Your task to perform on an android device: turn on improve location accuracy Image 0: 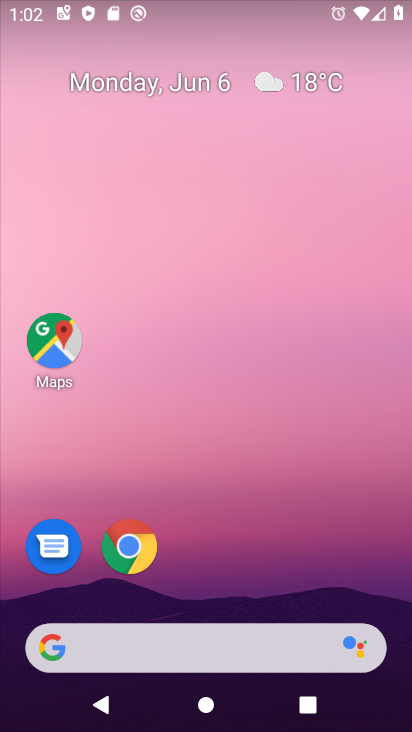
Step 0: drag from (239, 571) to (211, 115)
Your task to perform on an android device: turn on improve location accuracy Image 1: 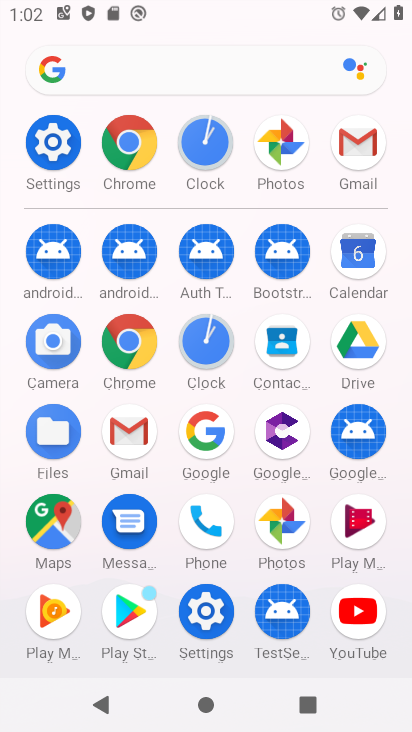
Step 1: click (45, 133)
Your task to perform on an android device: turn on improve location accuracy Image 2: 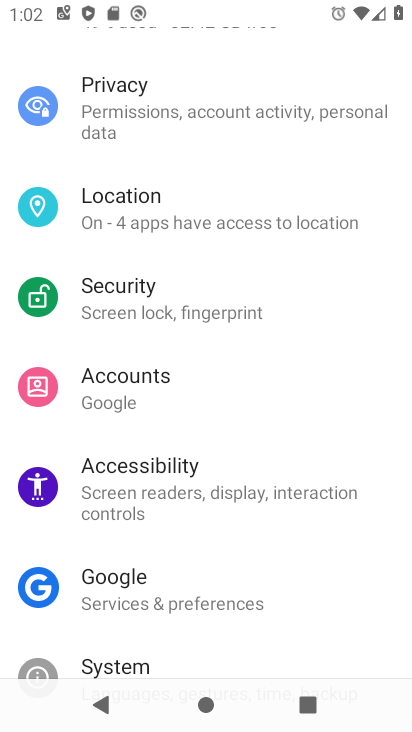
Step 2: click (169, 187)
Your task to perform on an android device: turn on improve location accuracy Image 3: 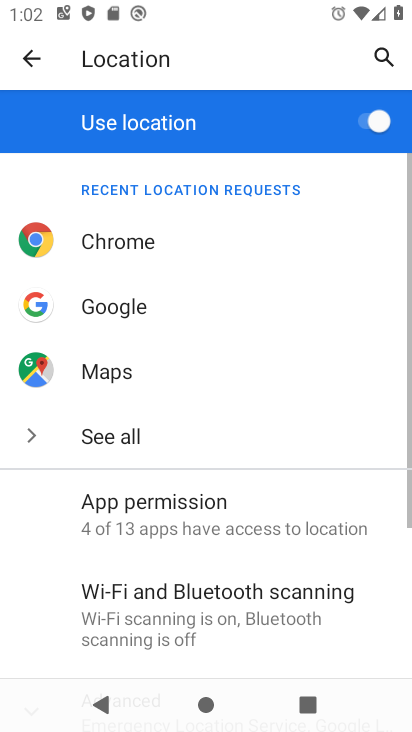
Step 3: drag from (47, 631) to (45, 188)
Your task to perform on an android device: turn on improve location accuracy Image 4: 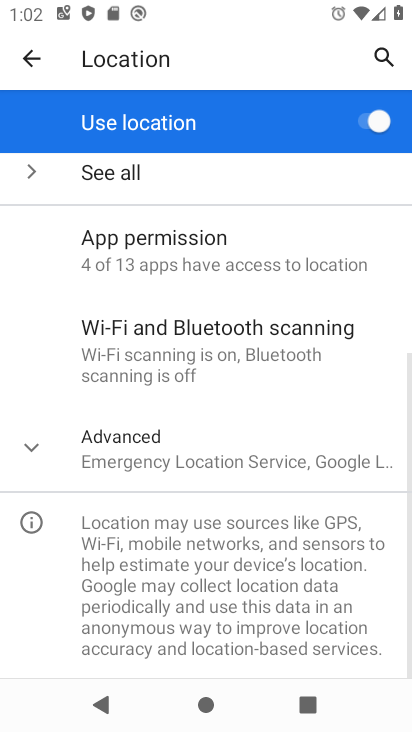
Step 4: click (35, 449)
Your task to perform on an android device: turn on improve location accuracy Image 5: 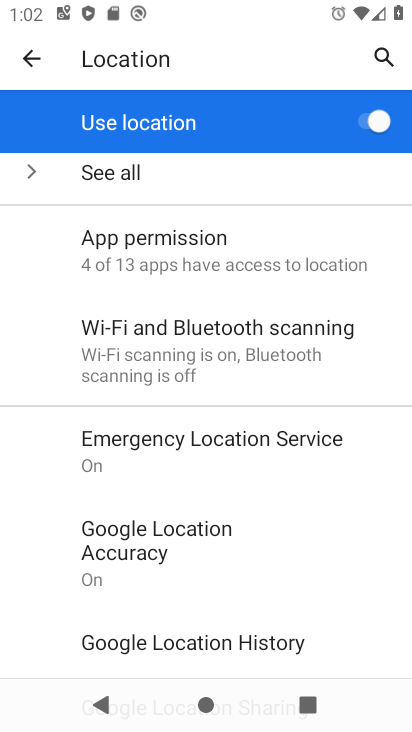
Step 5: drag from (57, 612) to (69, 314)
Your task to perform on an android device: turn on improve location accuracy Image 6: 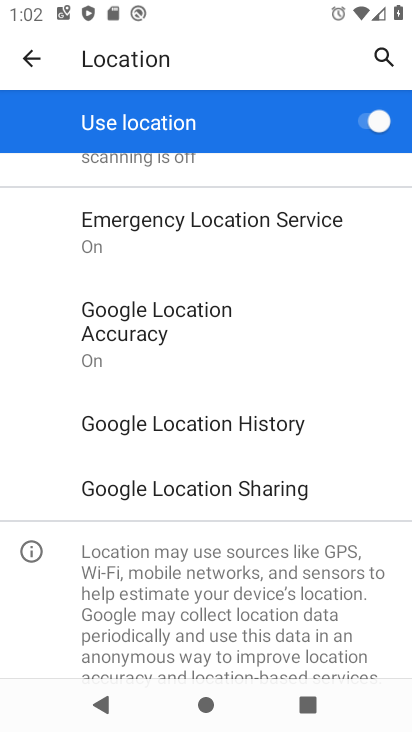
Step 6: click (195, 329)
Your task to perform on an android device: turn on improve location accuracy Image 7: 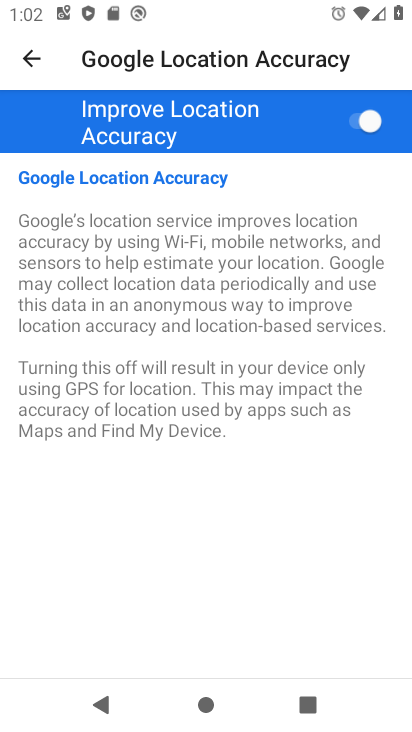
Step 7: task complete